Your task to perform on an android device: stop showing notifications on the lock screen Image 0: 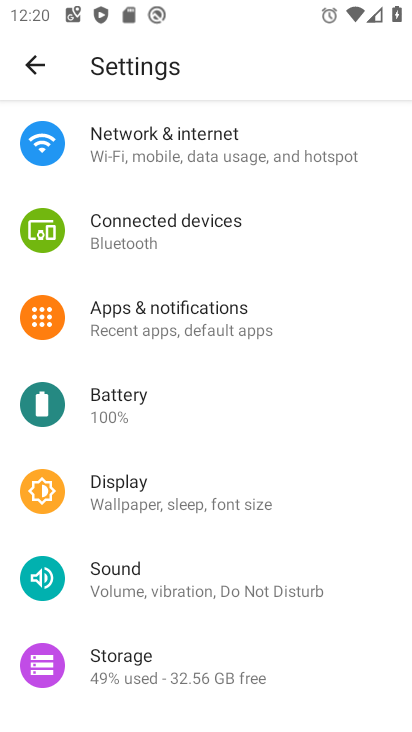
Step 0: press home button
Your task to perform on an android device: stop showing notifications on the lock screen Image 1: 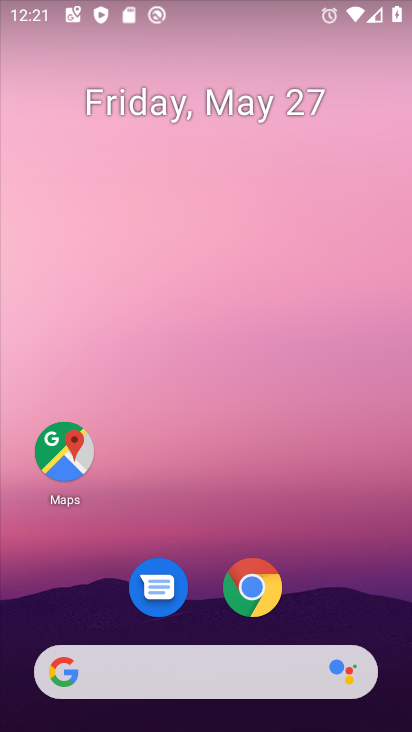
Step 1: drag from (241, 690) to (260, 114)
Your task to perform on an android device: stop showing notifications on the lock screen Image 2: 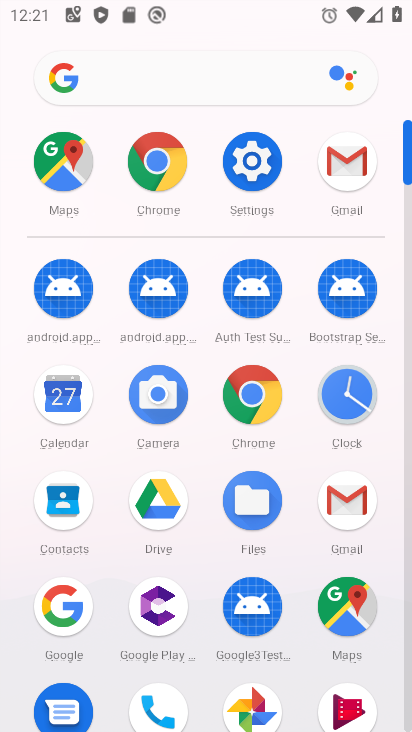
Step 2: click (247, 174)
Your task to perform on an android device: stop showing notifications on the lock screen Image 3: 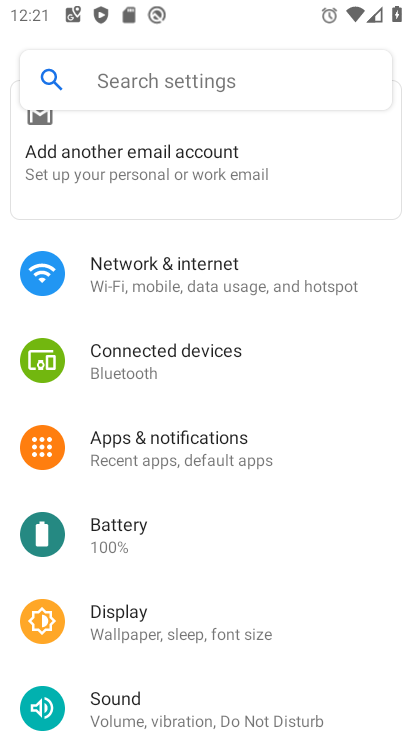
Step 3: click (197, 77)
Your task to perform on an android device: stop showing notifications on the lock screen Image 4: 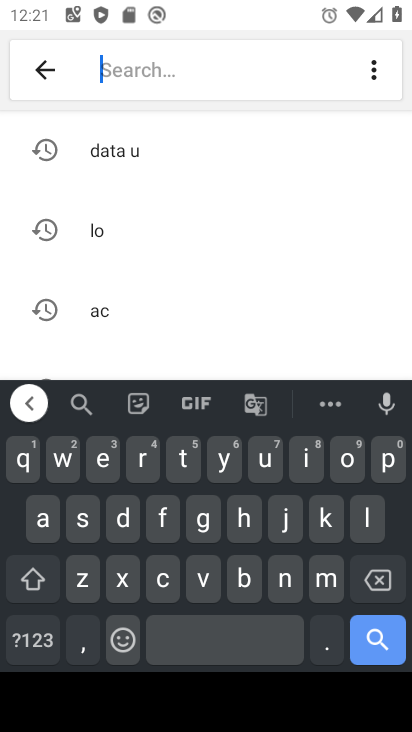
Step 4: click (287, 578)
Your task to perform on an android device: stop showing notifications on the lock screen Image 5: 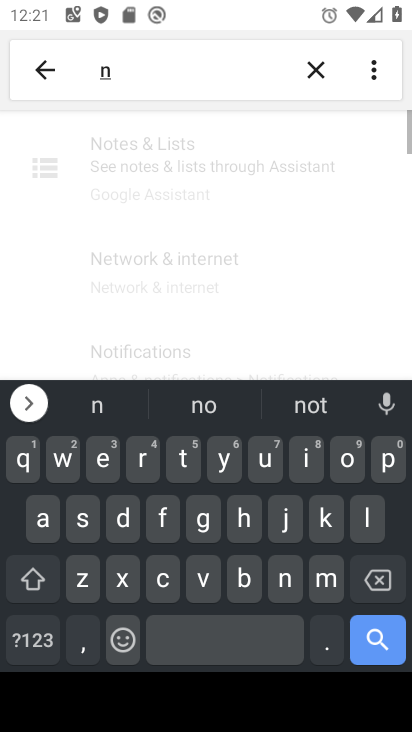
Step 5: click (348, 457)
Your task to perform on an android device: stop showing notifications on the lock screen Image 6: 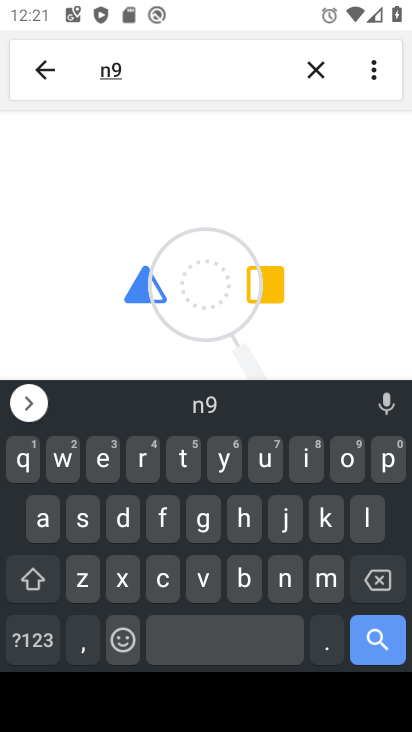
Step 6: click (372, 578)
Your task to perform on an android device: stop showing notifications on the lock screen Image 7: 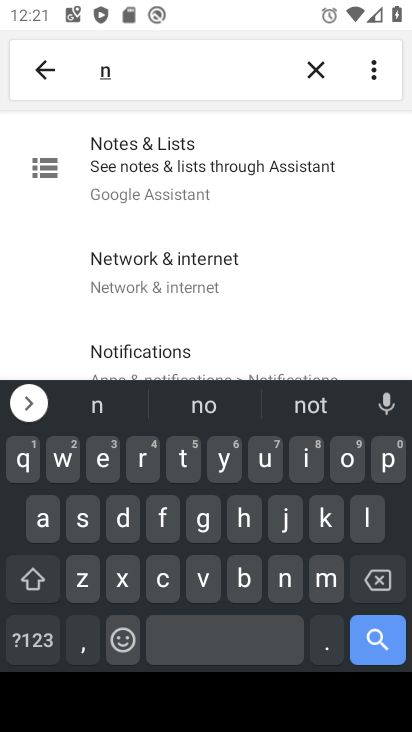
Step 7: click (346, 465)
Your task to perform on an android device: stop showing notifications on the lock screen Image 8: 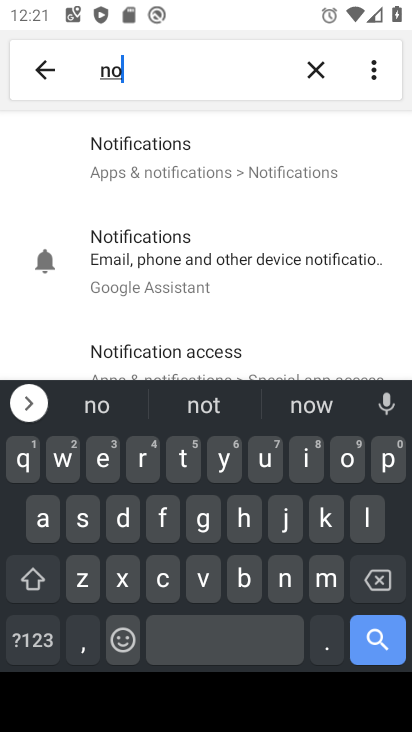
Step 8: click (223, 196)
Your task to perform on an android device: stop showing notifications on the lock screen Image 9: 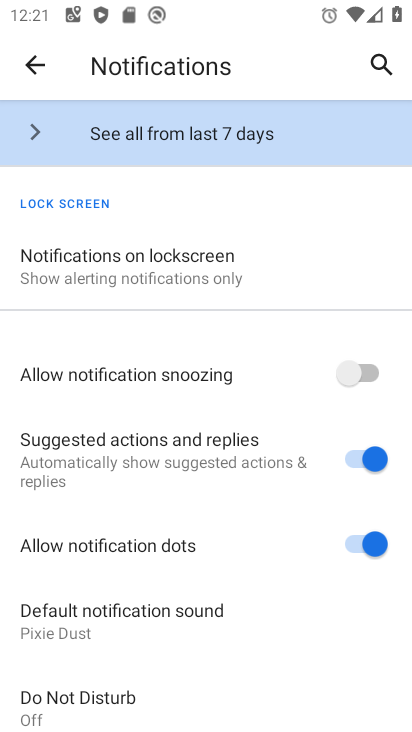
Step 9: click (139, 248)
Your task to perform on an android device: stop showing notifications on the lock screen Image 10: 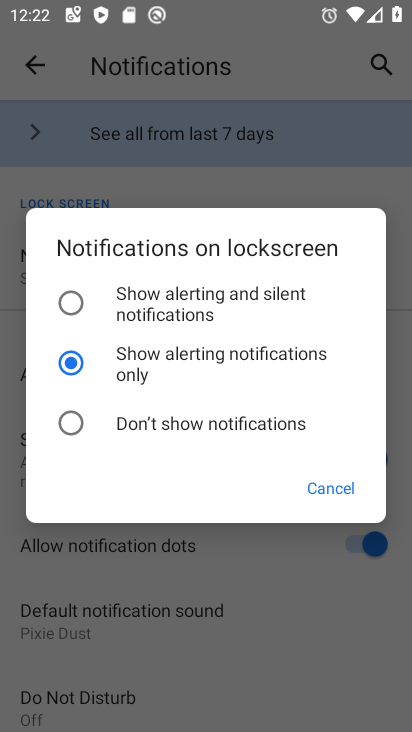
Step 10: click (123, 427)
Your task to perform on an android device: stop showing notifications on the lock screen Image 11: 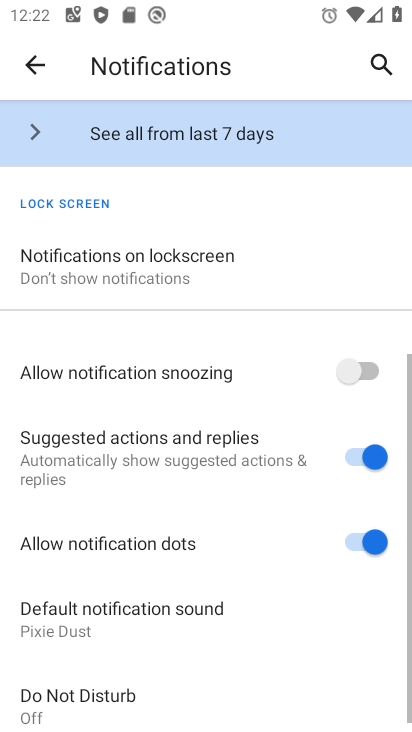
Step 11: task complete